Your task to perform on an android device: turn pop-ups off in chrome Image 0: 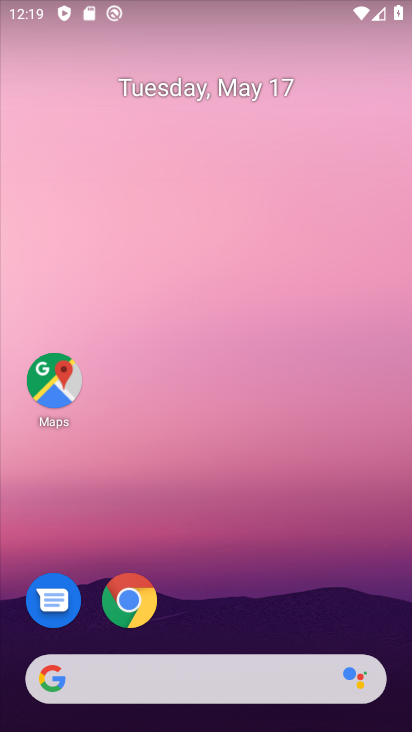
Step 0: click (139, 607)
Your task to perform on an android device: turn pop-ups off in chrome Image 1: 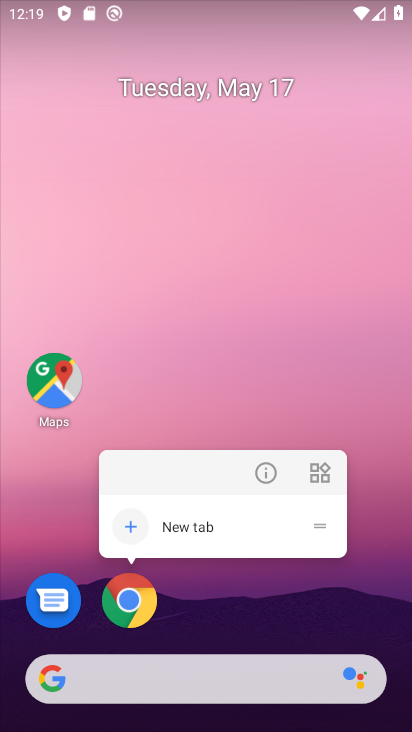
Step 1: click (129, 599)
Your task to perform on an android device: turn pop-ups off in chrome Image 2: 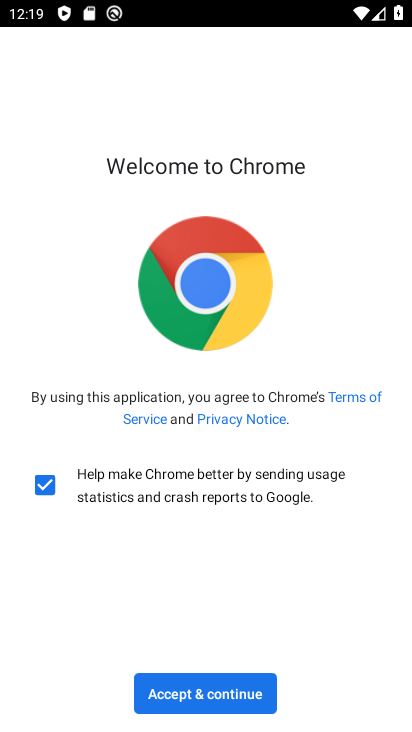
Step 2: click (249, 687)
Your task to perform on an android device: turn pop-ups off in chrome Image 3: 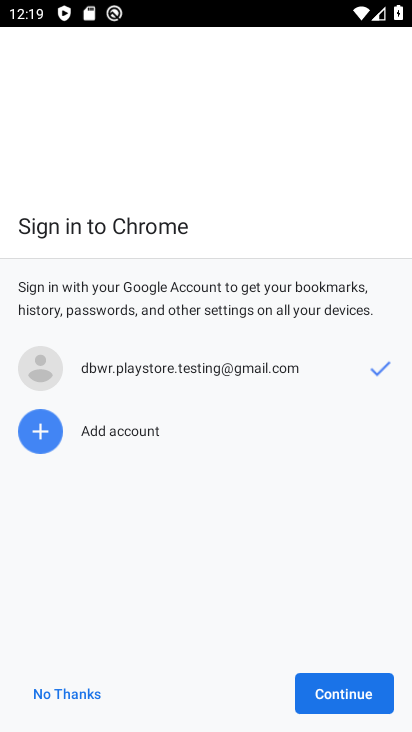
Step 3: click (376, 684)
Your task to perform on an android device: turn pop-ups off in chrome Image 4: 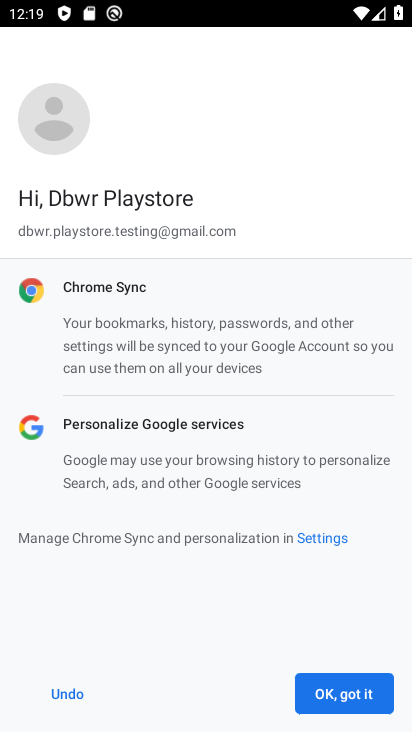
Step 4: click (366, 686)
Your task to perform on an android device: turn pop-ups off in chrome Image 5: 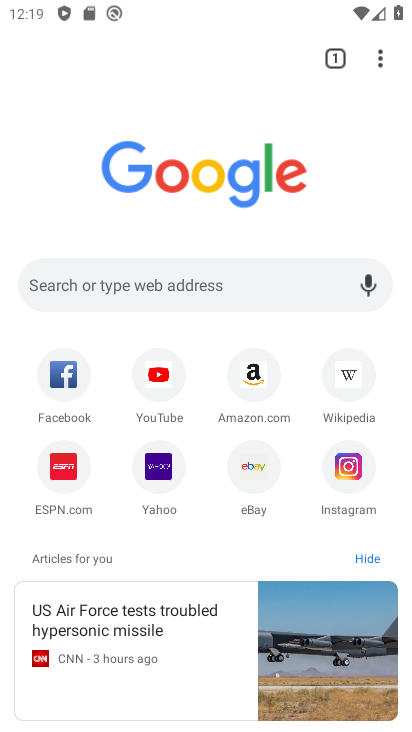
Step 5: click (374, 54)
Your task to perform on an android device: turn pop-ups off in chrome Image 6: 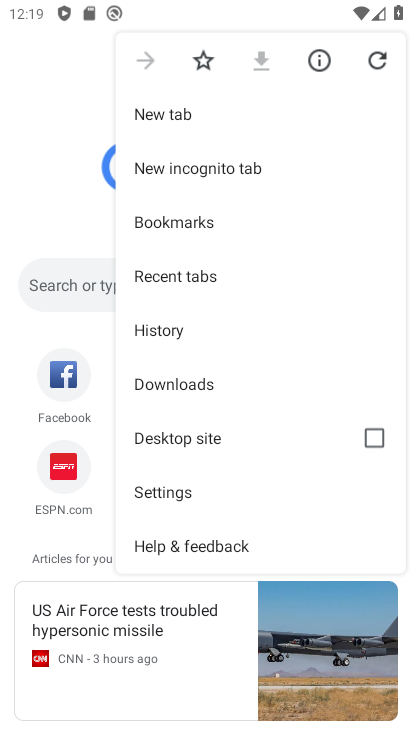
Step 6: click (173, 487)
Your task to perform on an android device: turn pop-ups off in chrome Image 7: 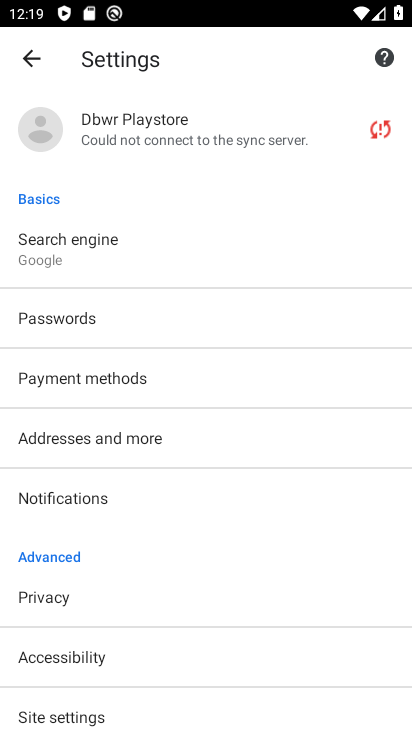
Step 7: click (76, 706)
Your task to perform on an android device: turn pop-ups off in chrome Image 8: 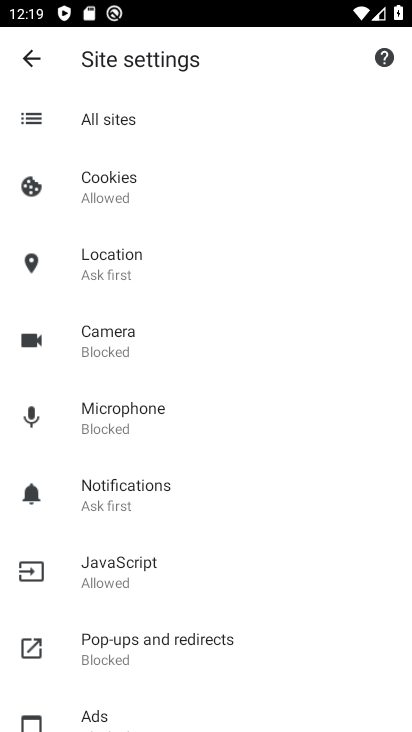
Step 8: click (129, 646)
Your task to perform on an android device: turn pop-ups off in chrome Image 9: 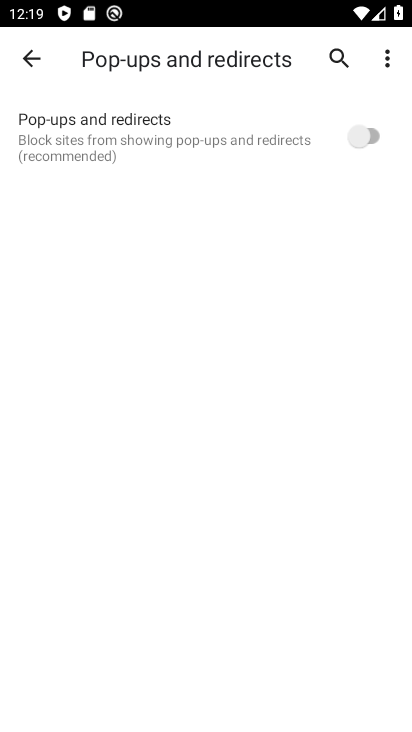
Step 9: task complete